Your task to perform on an android device: Open maps Image 0: 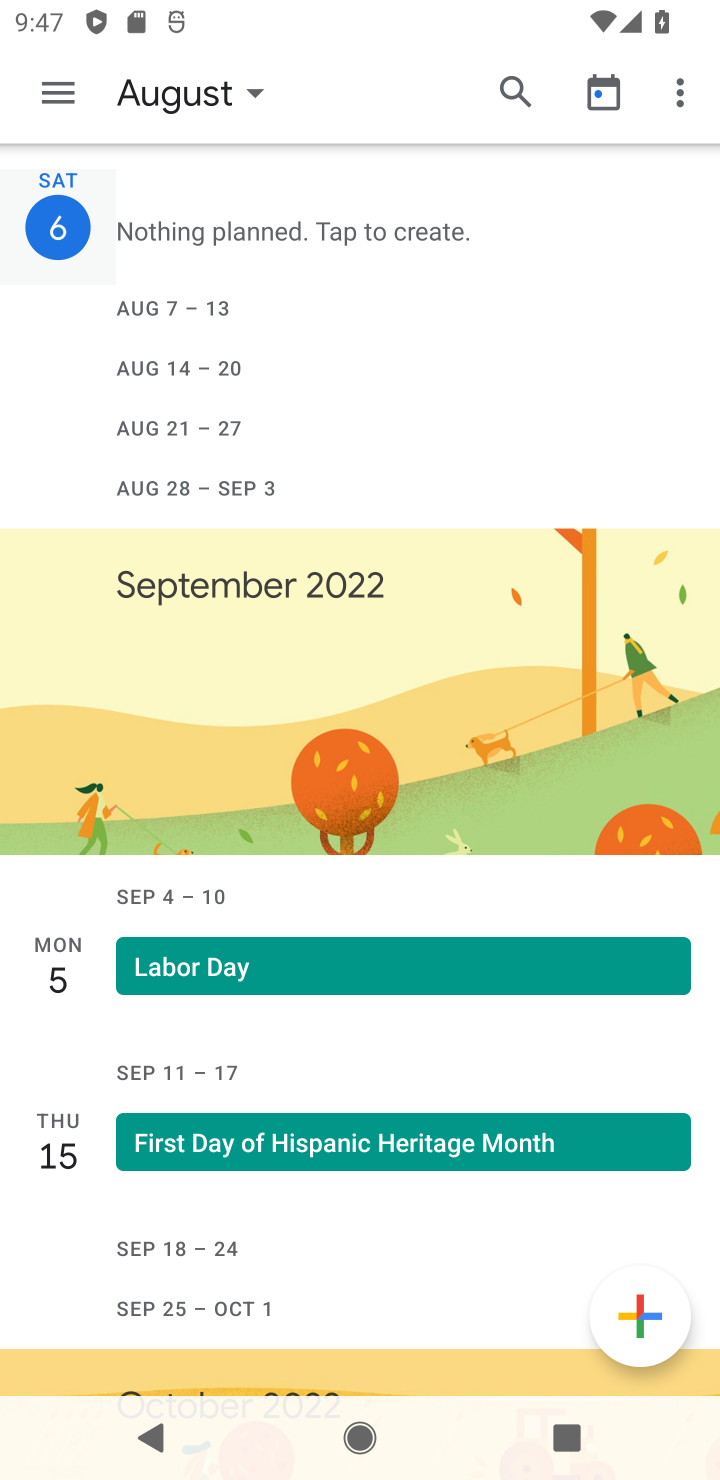
Step 0: press home button
Your task to perform on an android device: Open maps Image 1: 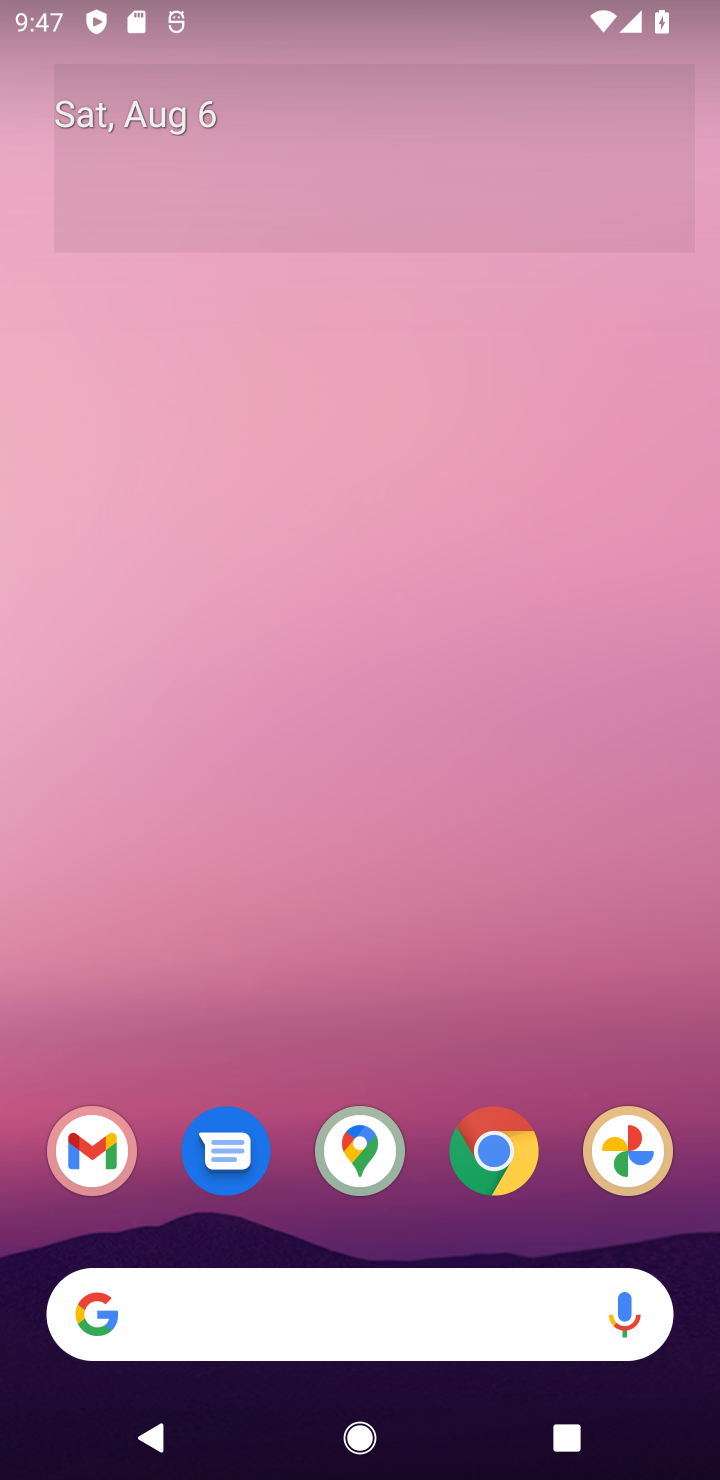
Step 1: click (385, 981)
Your task to perform on an android device: Open maps Image 2: 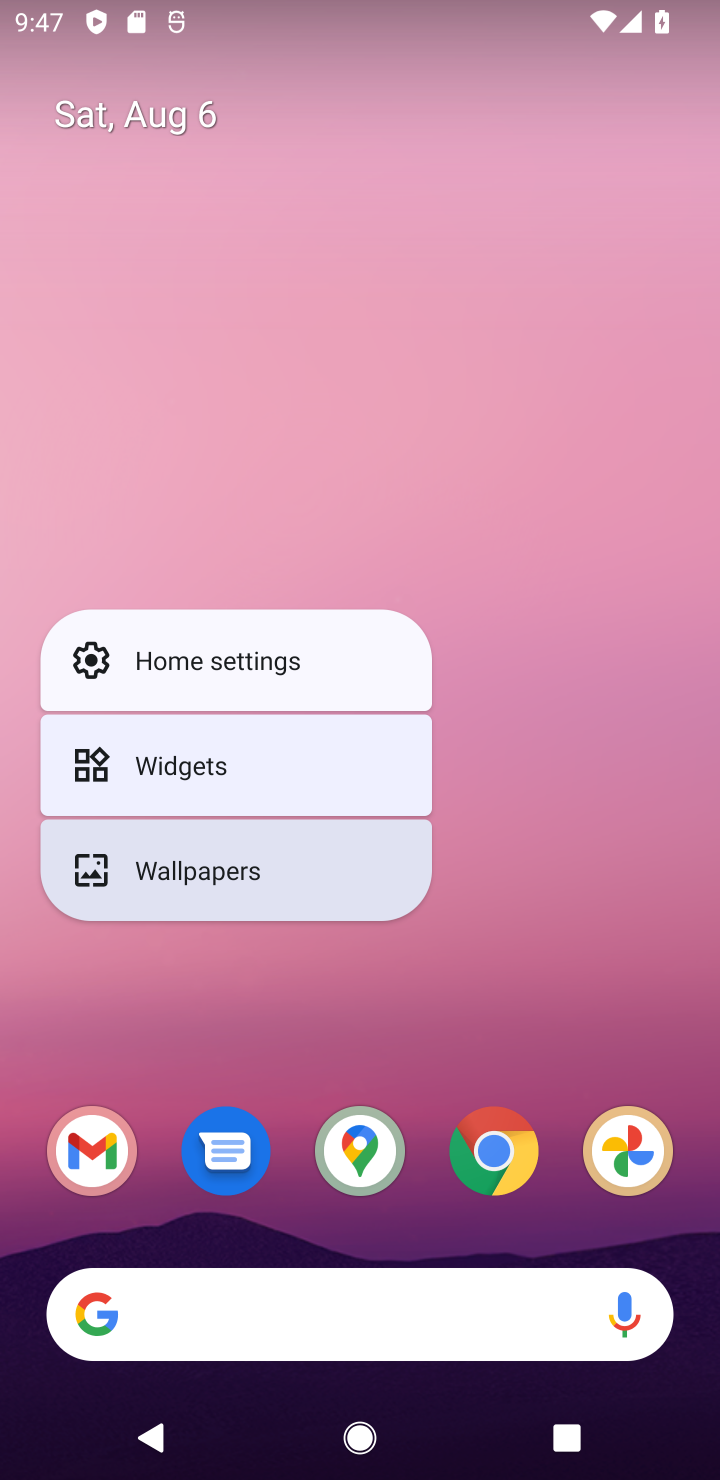
Step 2: click (370, 1164)
Your task to perform on an android device: Open maps Image 3: 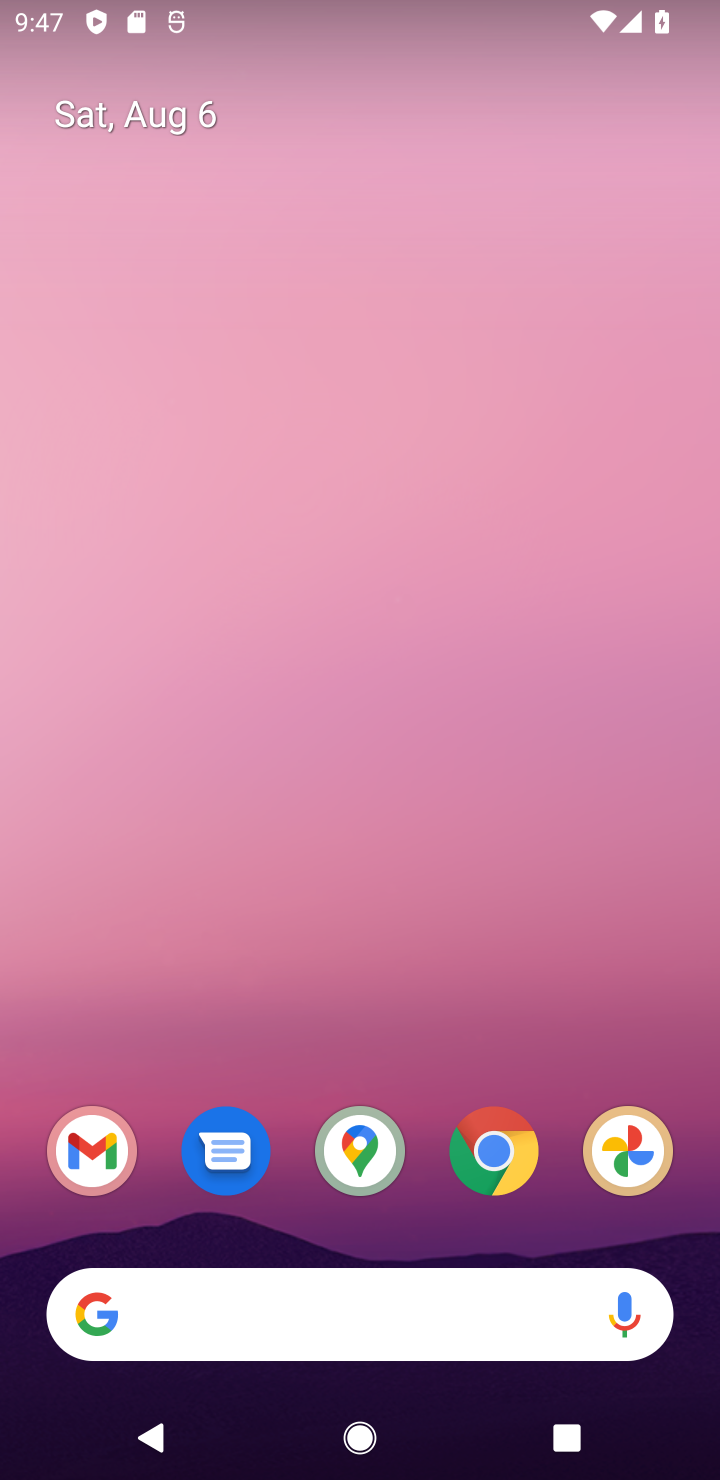
Step 3: click (370, 1164)
Your task to perform on an android device: Open maps Image 4: 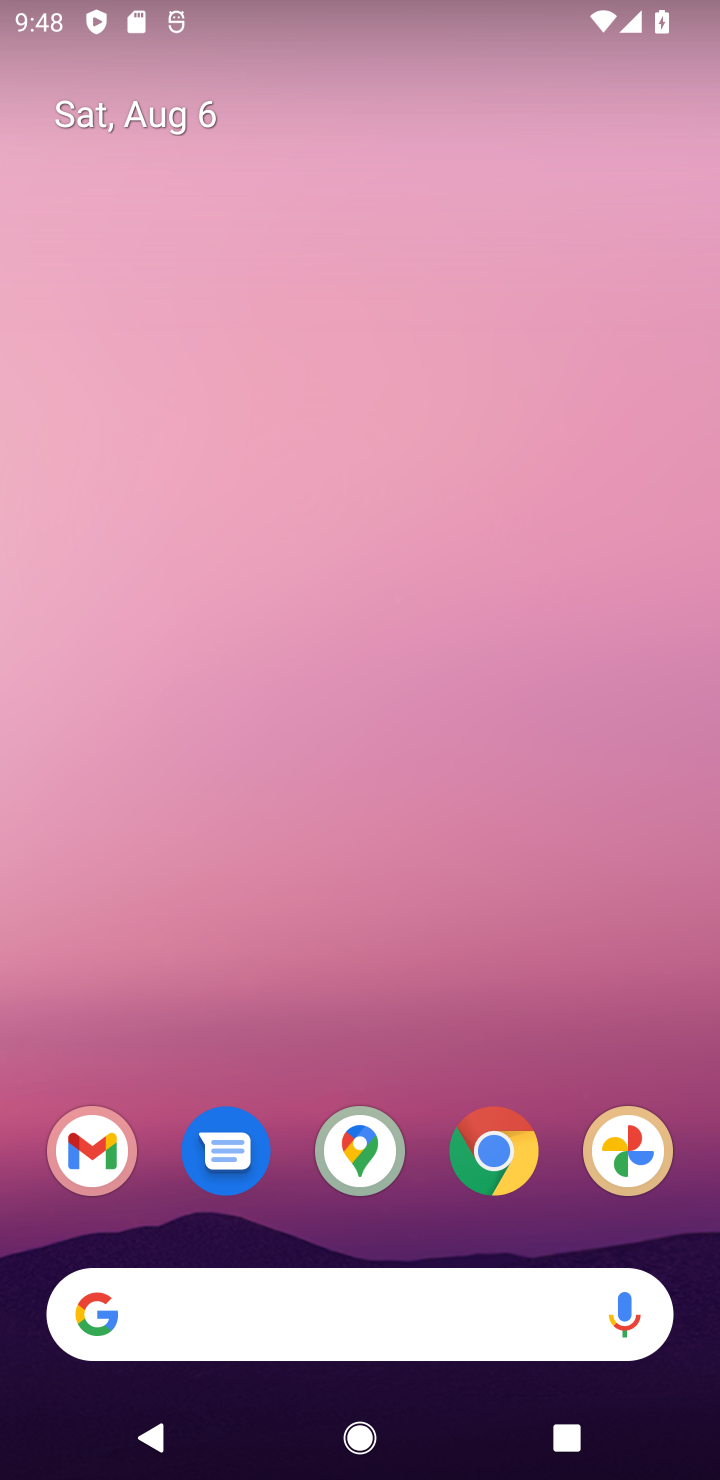
Step 4: click (352, 1150)
Your task to perform on an android device: Open maps Image 5: 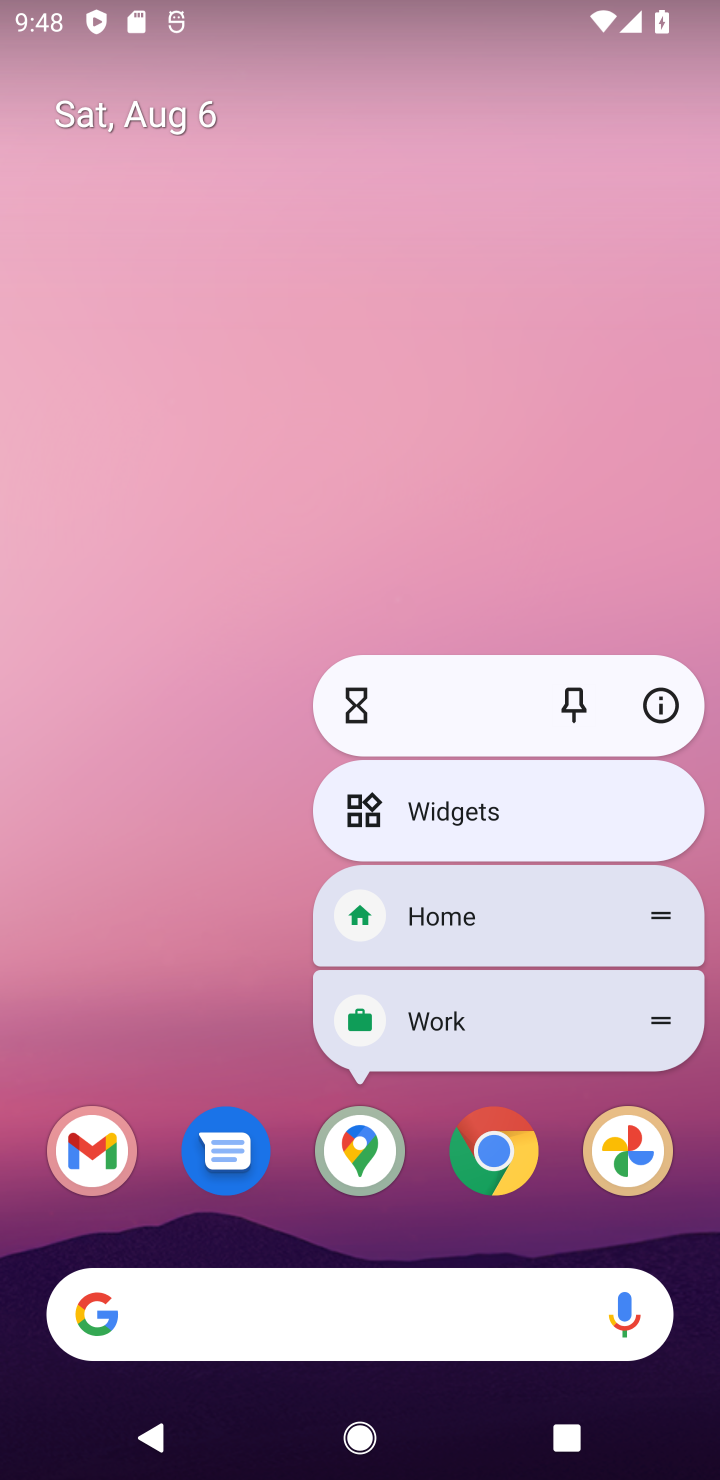
Step 5: task complete